Your task to perform on an android device: create a new album in the google photos Image 0: 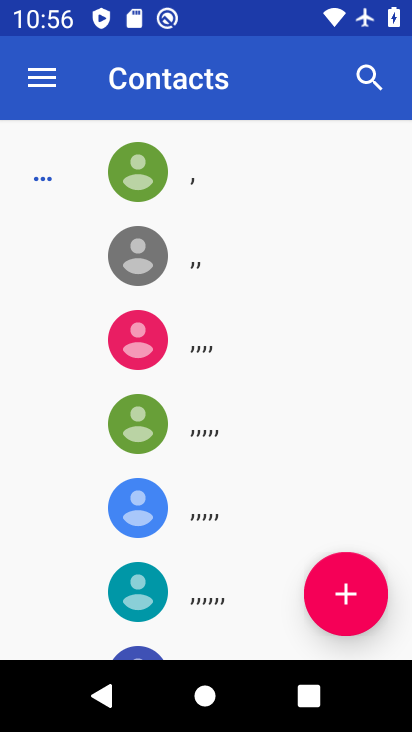
Step 0: press home button
Your task to perform on an android device: create a new album in the google photos Image 1: 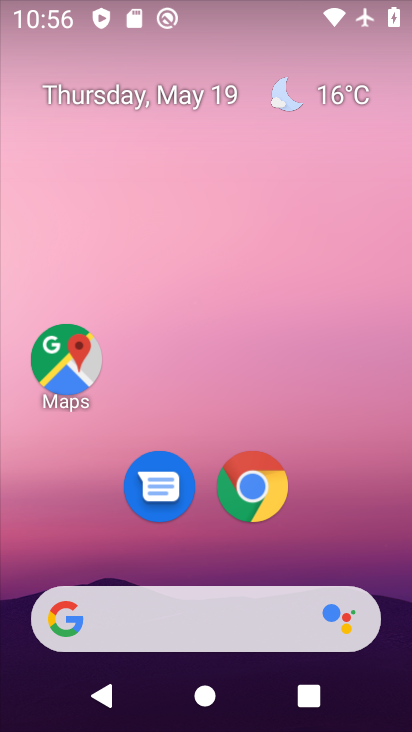
Step 1: drag from (377, 513) to (371, 15)
Your task to perform on an android device: create a new album in the google photos Image 2: 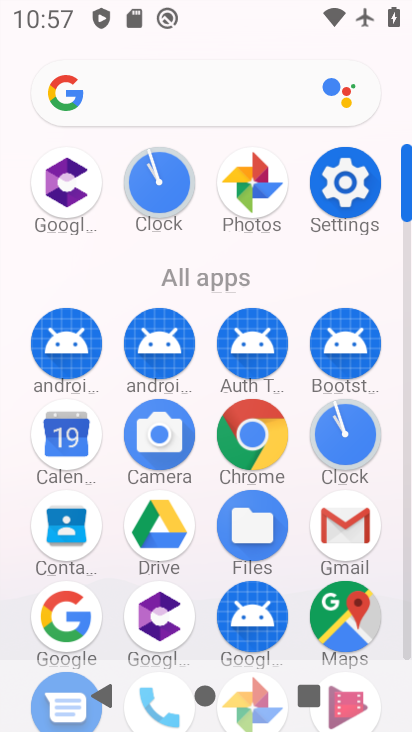
Step 2: click (409, 638)
Your task to perform on an android device: create a new album in the google photos Image 3: 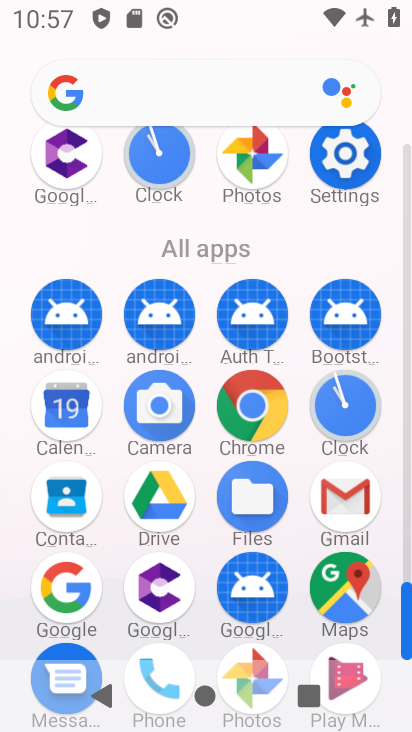
Step 3: click (409, 638)
Your task to perform on an android device: create a new album in the google photos Image 4: 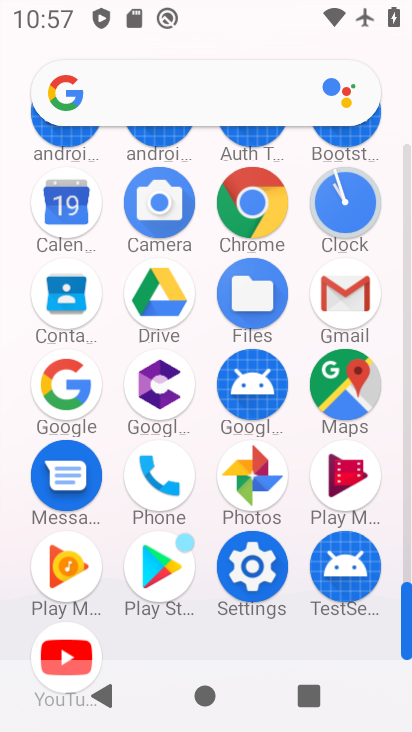
Step 4: click (232, 500)
Your task to perform on an android device: create a new album in the google photos Image 5: 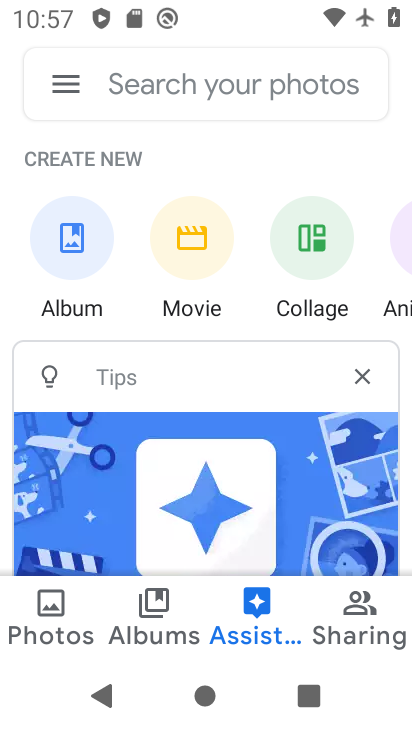
Step 5: click (74, 93)
Your task to perform on an android device: create a new album in the google photos Image 6: 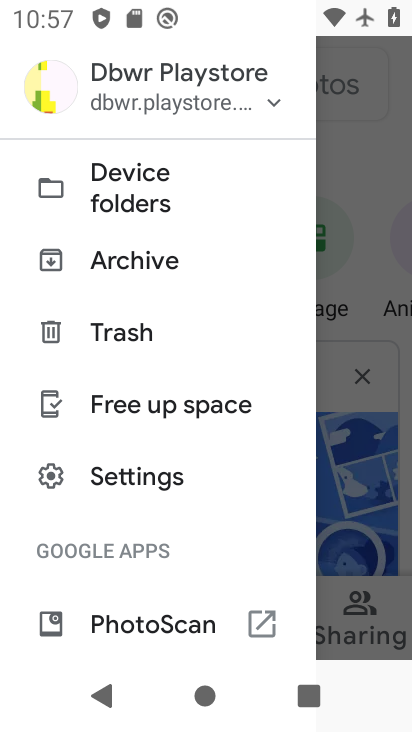
Step 6: click (335, 268)
Your task to perform on an android device: create a new album in the google photos Image 7: 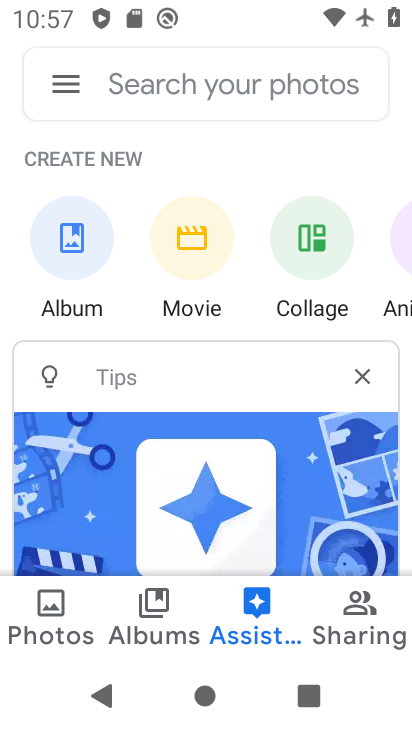
Step 7: click (47, 222)
Your task to perform on an android device: create a new album in the google photos Image 8: 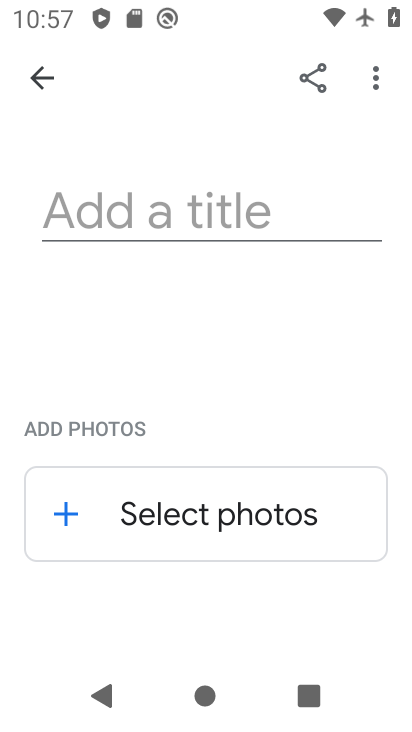
Step 8: click (80, 224)
Your task to perform on an android device: create a new album in the google photos Image 9: 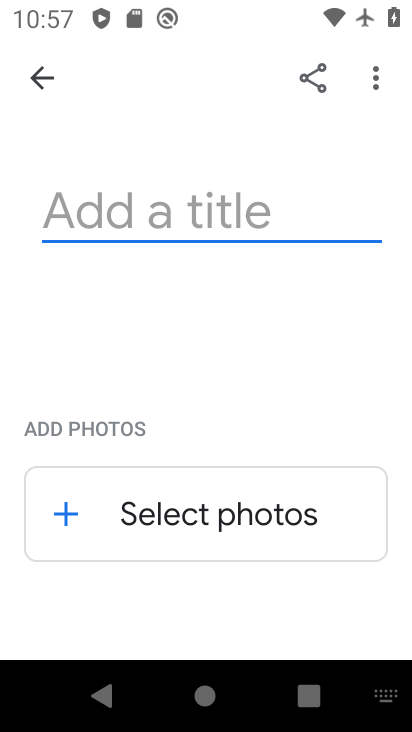
Step 9: type "jbjbjl"
Your task to perform on an android device: create a new album in the google photos Image 10: 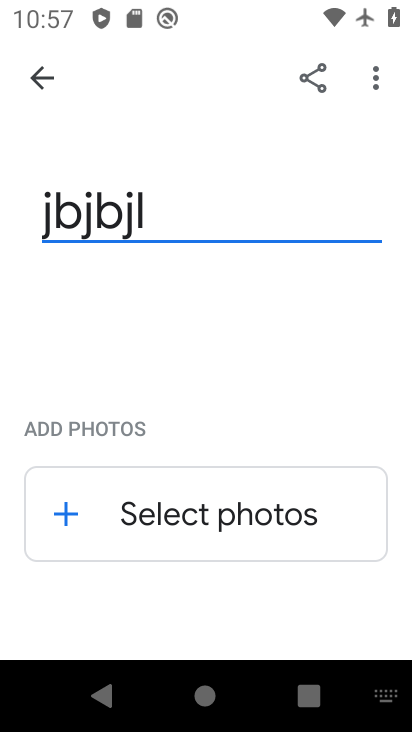
Step 10: click (316, 552)
Your task to perform on an android device: create a new album in the google photos Image 11: 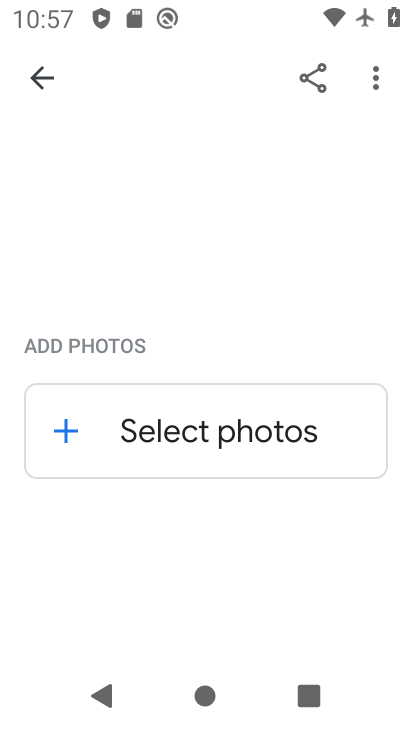
Step 11: click (265, 463)
Your task to perform on an android device: create a new album in the google photos Image 12: 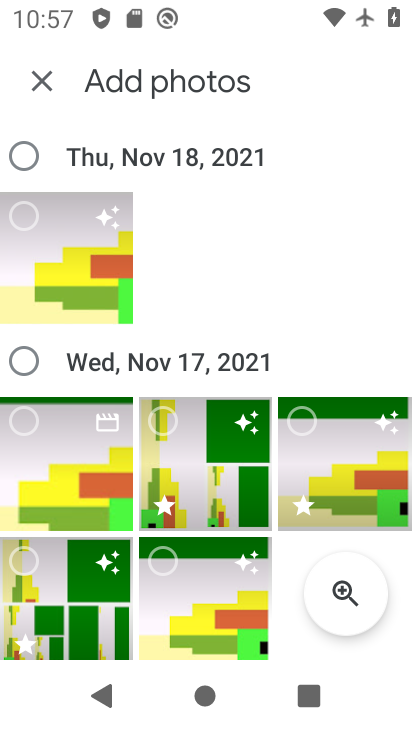
Step 12: click (18, 161)
Your task to perform on an android device: create a new album in the google photos Image 13: 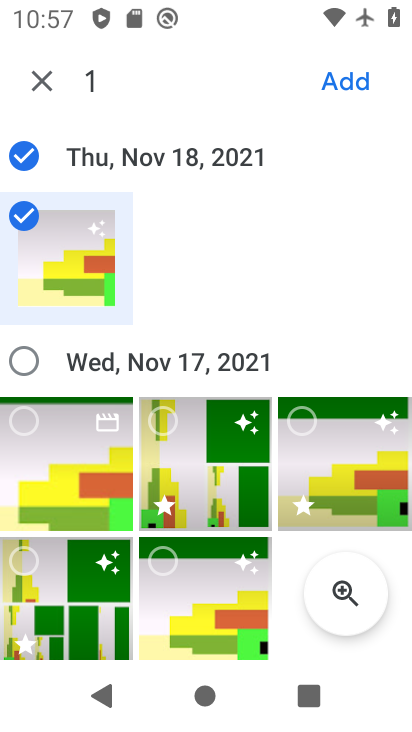
Step 13: click (30, 365)
Your task to perform on an android device: create a new album in the google photos Image 14: 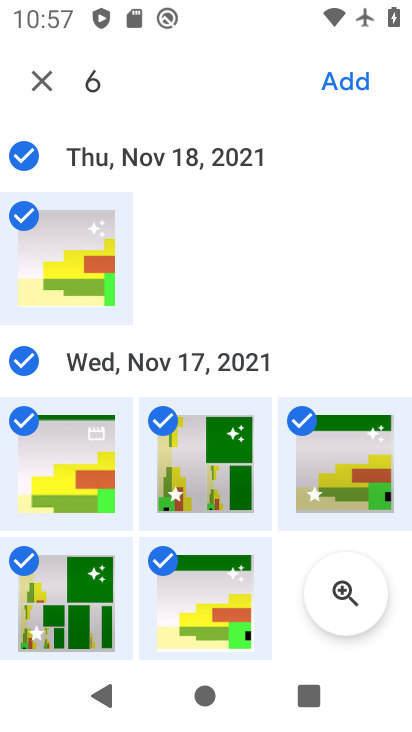
Step 14: click (358, 94)
Your task to perform on an android device: create a new album in the google photos Image 15: 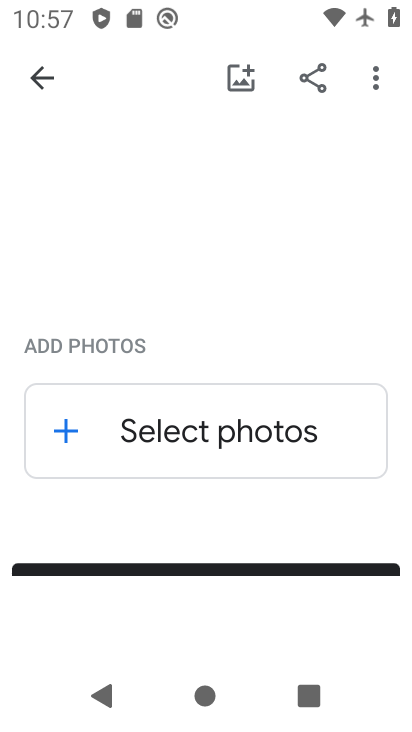
Step 15: task complete